Your task to perform on an android device: turn off priority inbox in the gmail app Image 0: 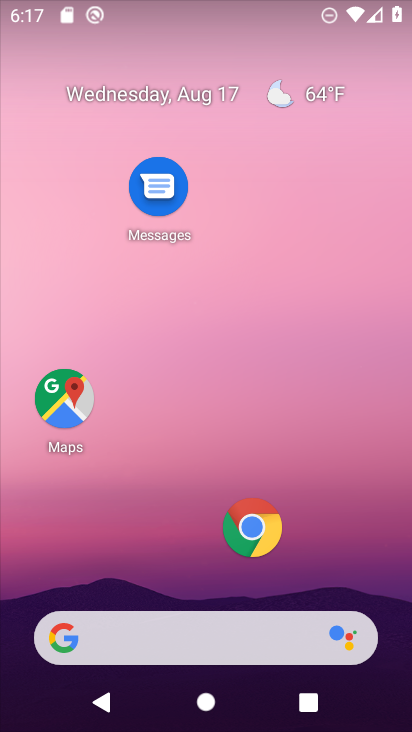
Step 0: drag from (187, 623) to (181, 234)
Your task to perform on an android device: turn off priority inbox in the gmail app Image 1: 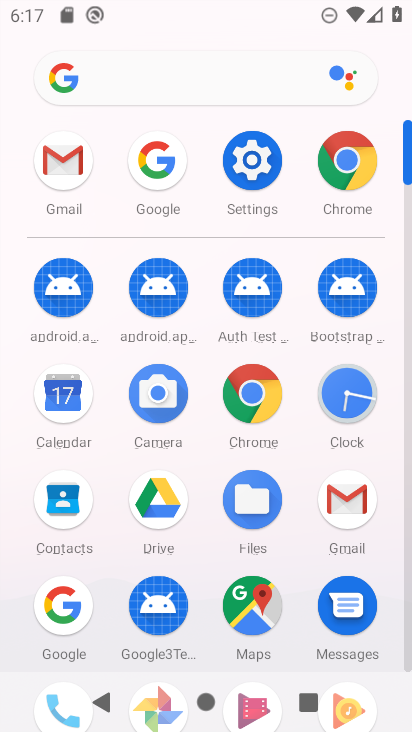
Step 1: click (56, 177)
Your task to perform on an android device: turn off priority inbox in the gmail app Image 2: 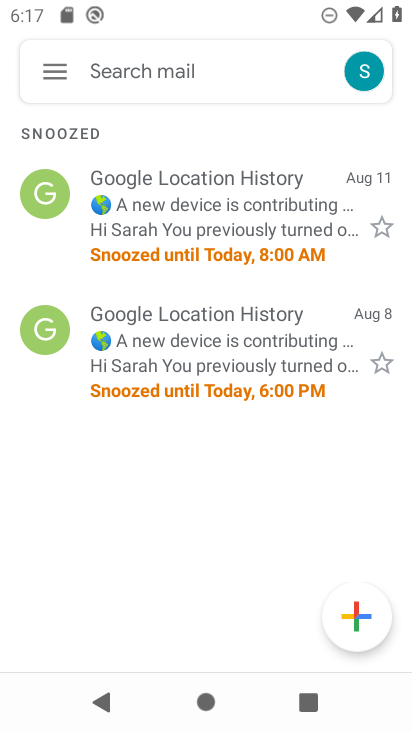
Step 2: click (54, 71)
Your task to perform on an android device: turn off priority inbox in the gmail app Image 3: 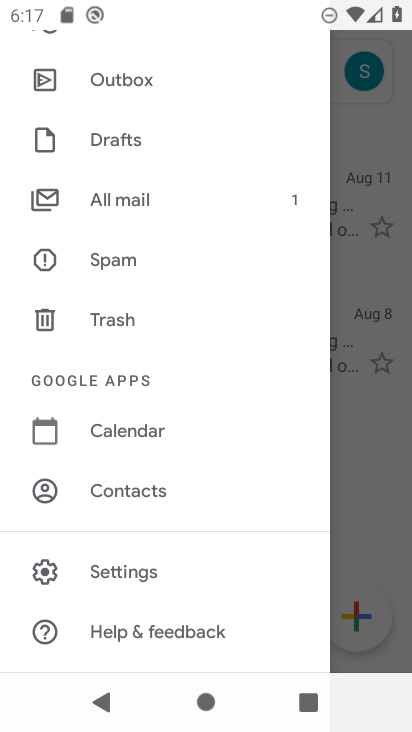
Step 3: click (137, 563)
Your task to perform on an android device: turn off priority inbox in the gmail app Image 4: 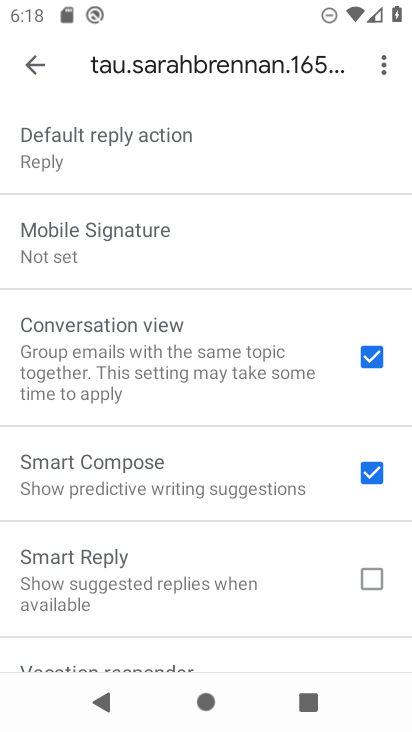
Step 4: drag from (107, 95) to (86, 497)
Your task to perform on an android device: turn off priority inbox in the gmail app Image 5: 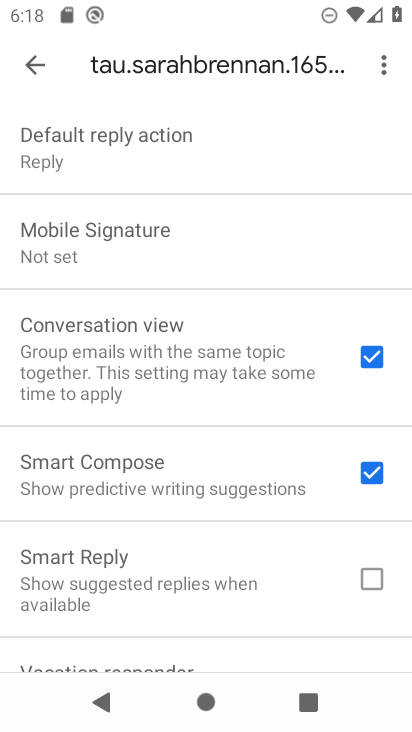
Step 5: drag from (85, 625) to (84, 321)
Your task to perform on an android device: turn off priority inbox in the gmail app Image 6: 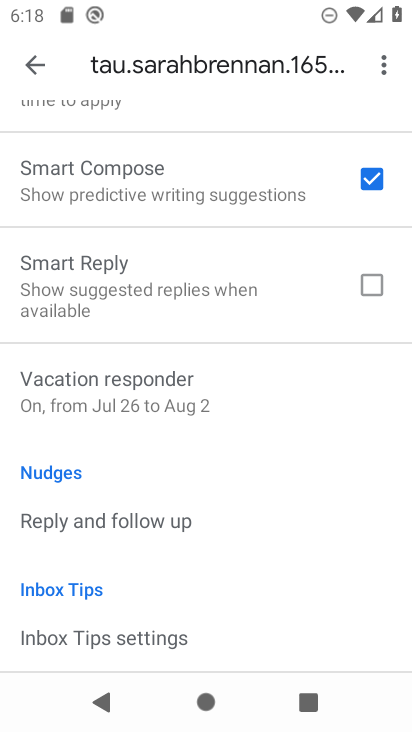
Step 6: drag from (108, 133) to (103, 531)
Your task to perform on an android device: turn off priority inbox in the gmail app Image 7: 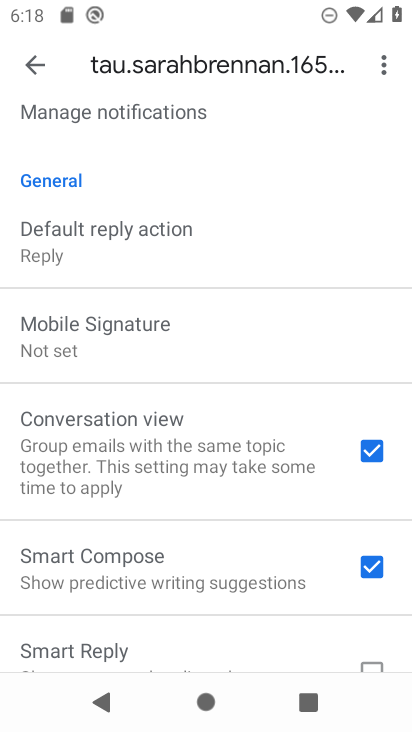
Step 7: drag from (148, 154) to (117, 545)
Your task to perform on an android device: turn off priority inbox in the gmail app Image 8: 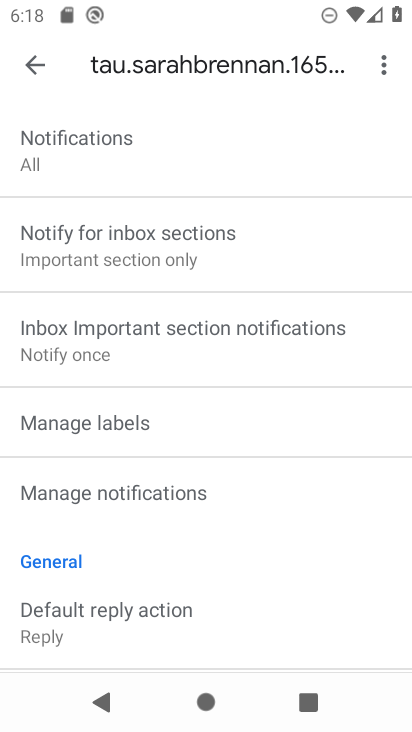
Step 8: drag from (125, 162) to (86, 523)
Your task to perform on an android device: turn off priority inbox in the gmail app Image 9: 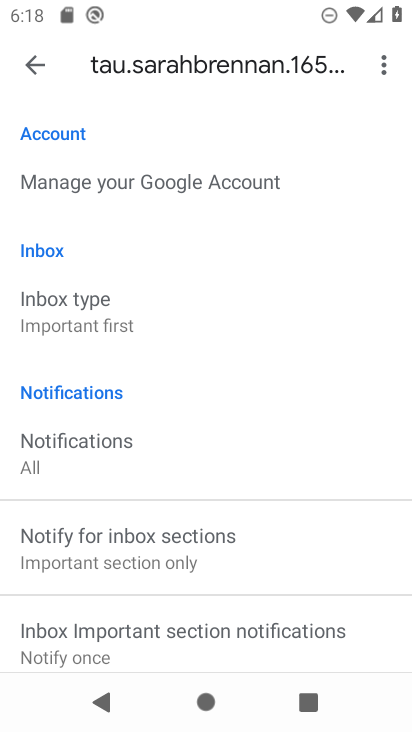
Step 9: click (80, 314)
Your task to perform on an android device: turn off priority inbox in the gmail app Image 10: 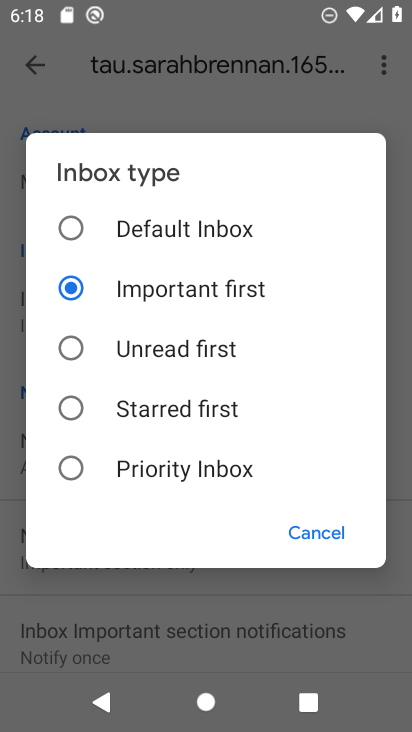
Step 10: click (128, 466)
Your task to perform on an android device: turn off priority inbox in the gmail app Image 11: 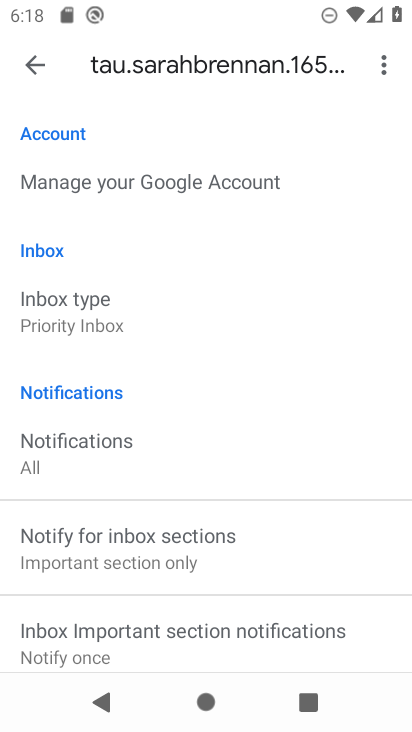
Step 11: task complete